Your task to perform on an android device: turn off translation in the chrome app Image 0: 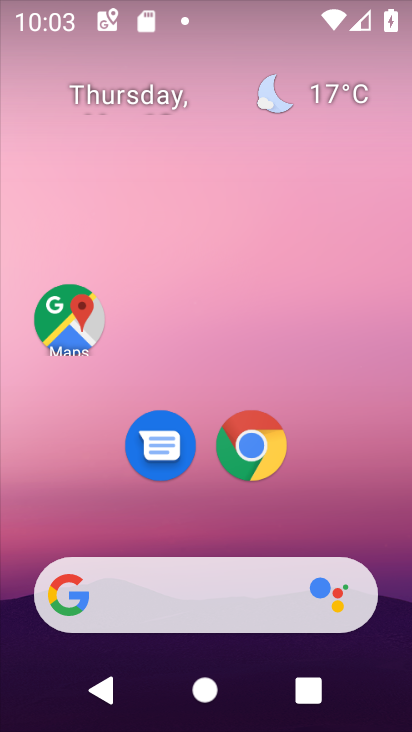
Step 0: drag from (247, 519) to (256, 235)
Your task to perform on an android device: turn off translation in the chrome app Image 1: 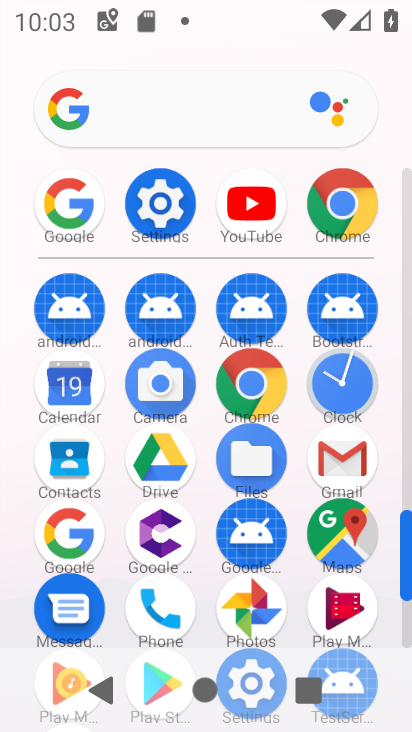
Step 1: click (246, 398)
Your task to perform on an android device: turn off translation in the chrome app Image 2: 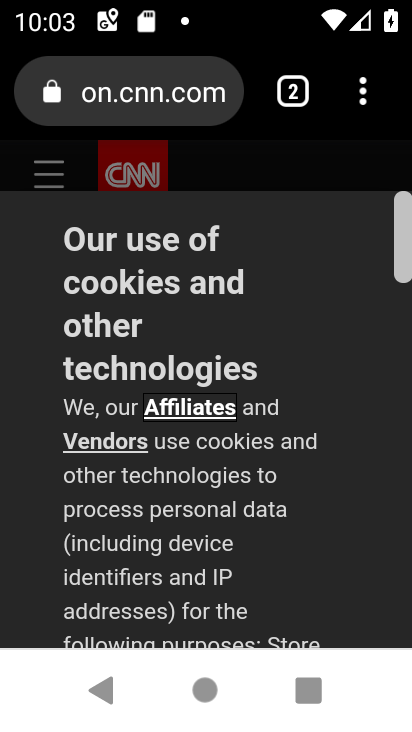
Step 2: click (368, 105)
Your task to perform on an android device: turn off translation in the chrome app Image 3: 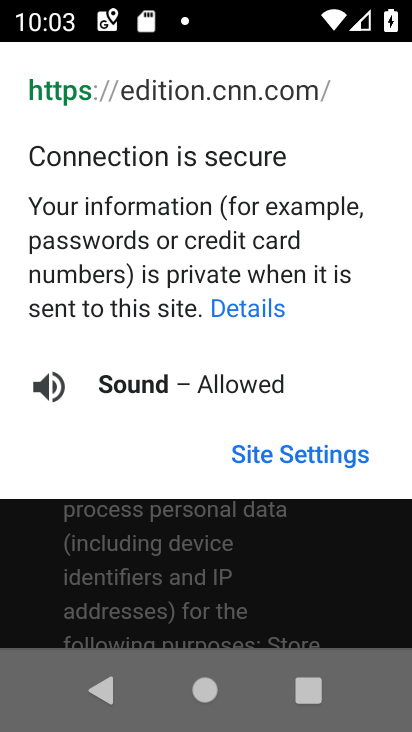
Step 3: click (293, 456)
Your task to perform on an android device: turn off translation in the chrome app Image 4: 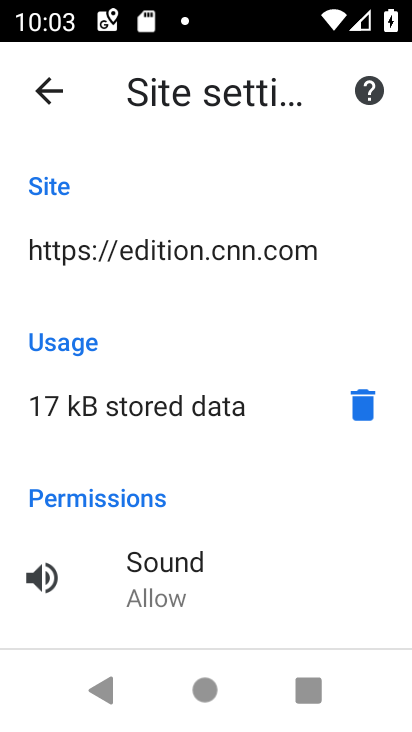
Step 4: task complete